Your task to perform on an android device: Open Youtube and go to "Your channel" Image 0: 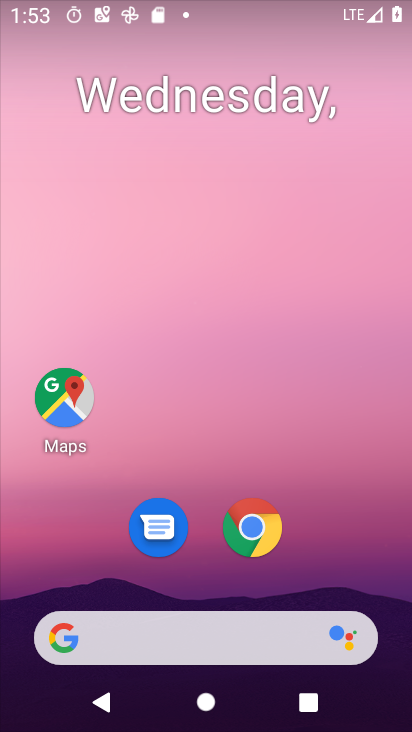
Step 0: drag from (324, 655) to (319, 2)
Your task to perform on an android device: Open Youtube and go to "Your channel" Image 1: 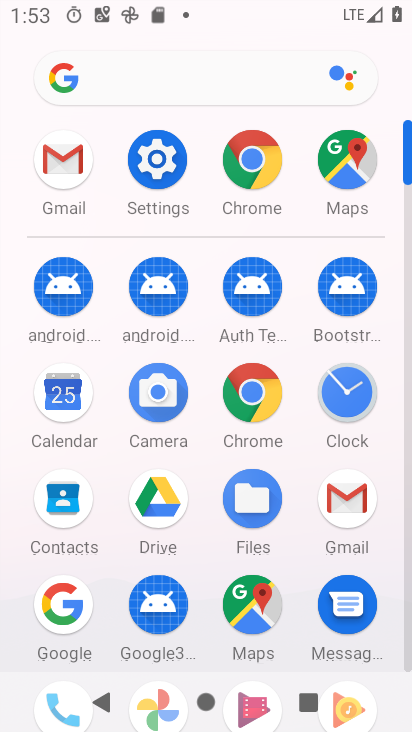
Step 1: drag from (296, 646) to (323, 133)
Your task to perform on an android device: Open Youtube and go to "Your channel" Image 2: 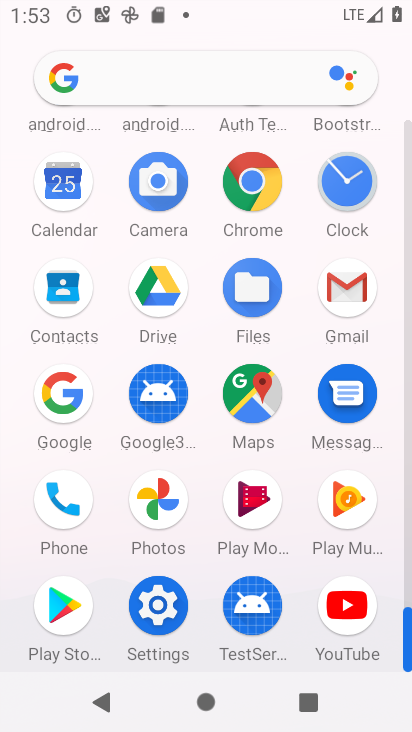
Step 2: click (343, 603)
Your task to perform on an android device: Open Youtube and go to "Your channel" Image 3: 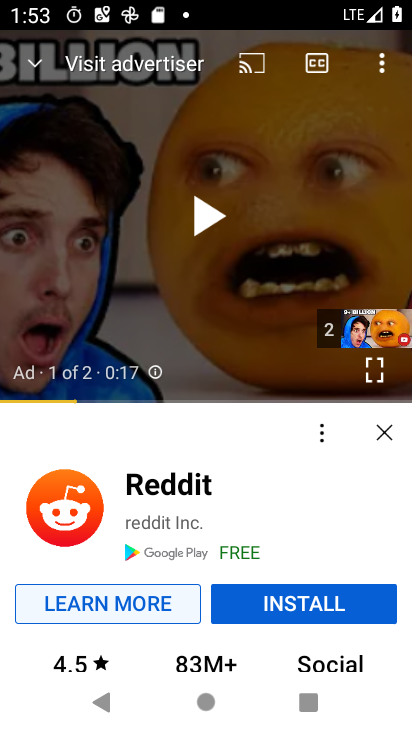
Step 3: press back button
Your task to perform on an android device: Open Youtube and go to "Your channel" Image 4: 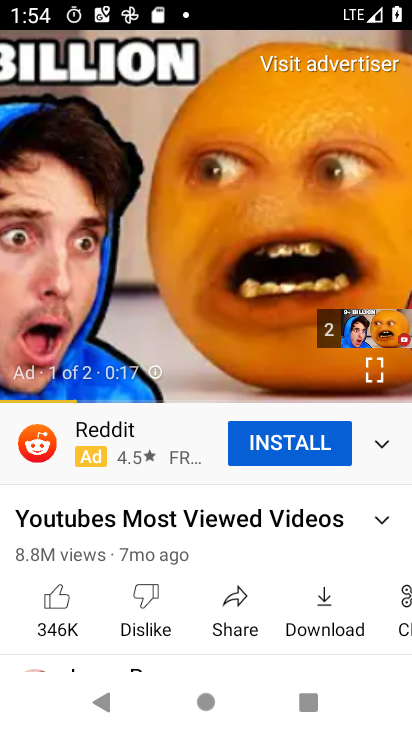
Step 4: press back button
Your task to perform on an android device: Open Youtube and go to "Your channel" Image 5: 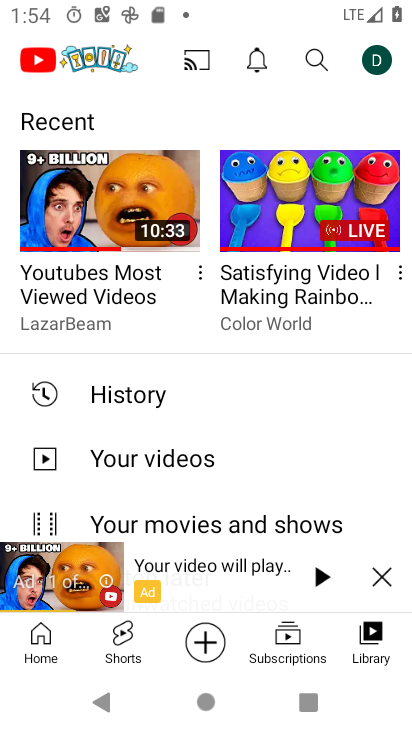
Step 5: click (376, 637)
Your task to perform on an android device: Open Youtube and go to "Your channel" Image 6: 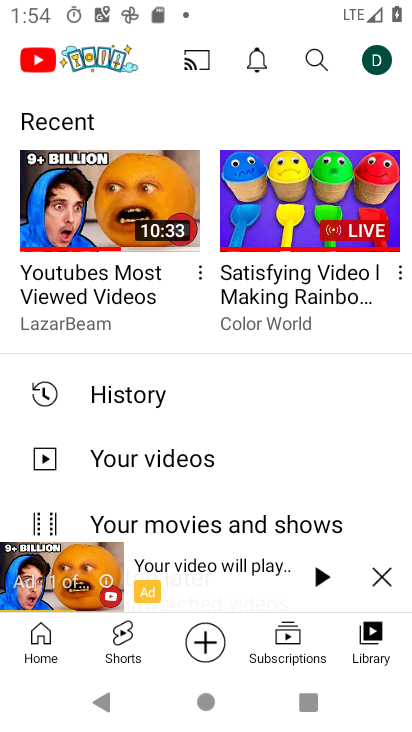
Step 6: click (381, 64)
Your task to perform on an android device: Open Youtube and go to "Your channel" Image 7: 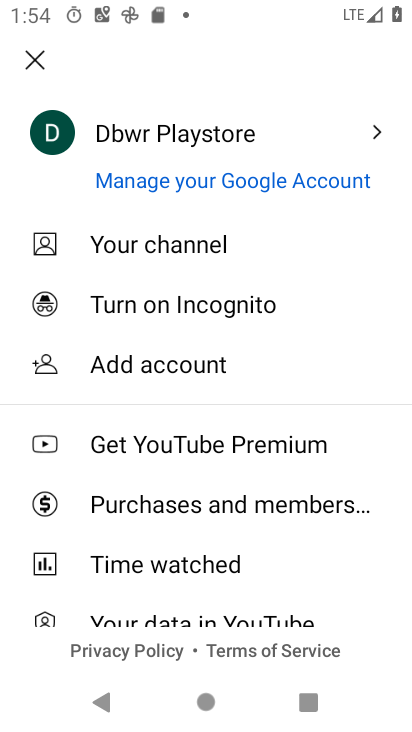
Step 7: click (193, 234)
Your task to perform on an android device: Open Youtube and go to "Your channel" Image 8: 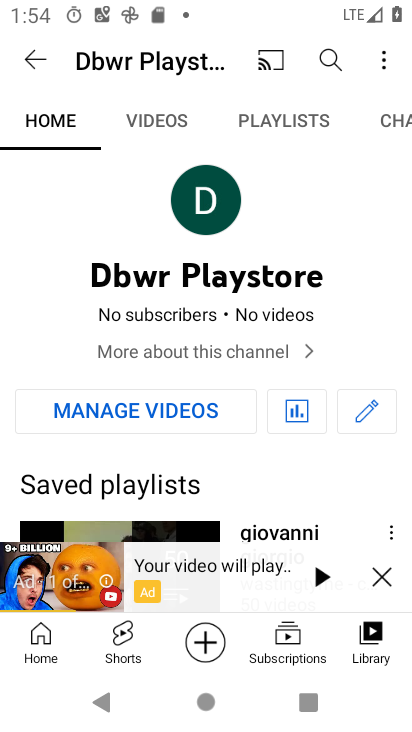
Step 8: task complete